Your task to perform on an android device: turn off location history Image 0: 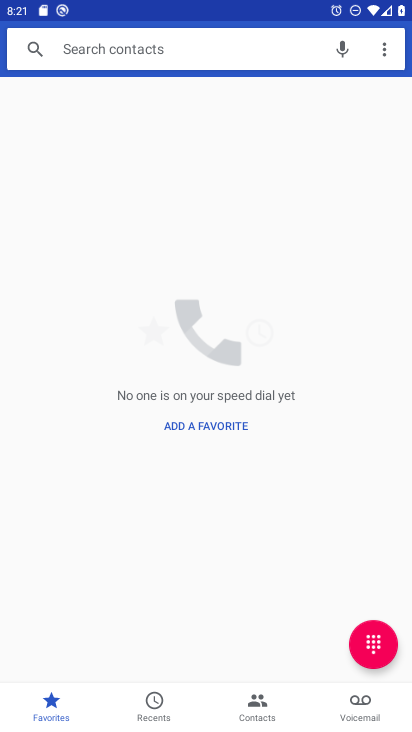
Step 0: press home button
Your task to perform on an android device: turn off location history Image 1: 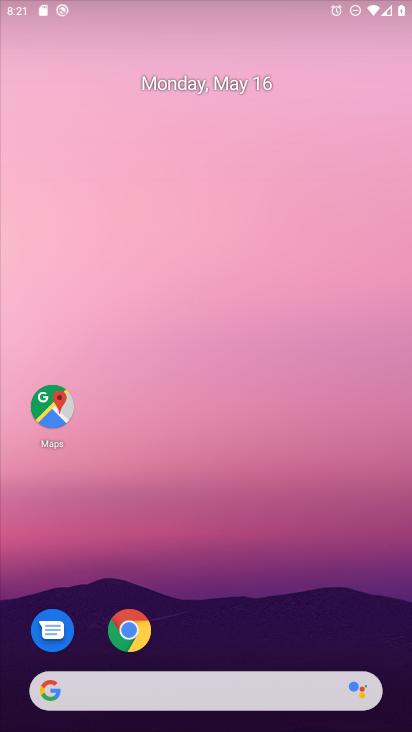
Step 1: drag from (288, 604) to (283, 183)
Your task to perform on an android device: turn off location history Image 2: 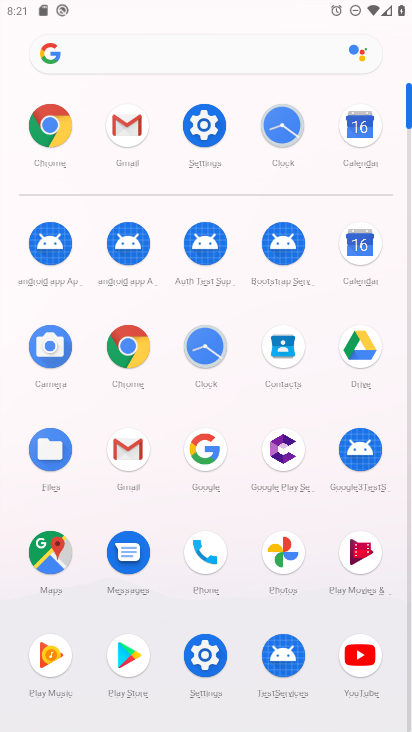
Step 2: click (185, 130)
Your task to perform on an android device: turn off location history Image 3: 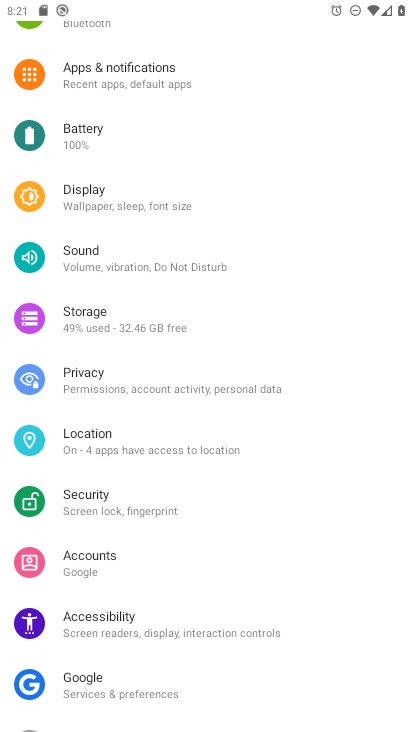
Step 3: click (166, 451)
Your task to perform on an android device: turn off location history Image 4: 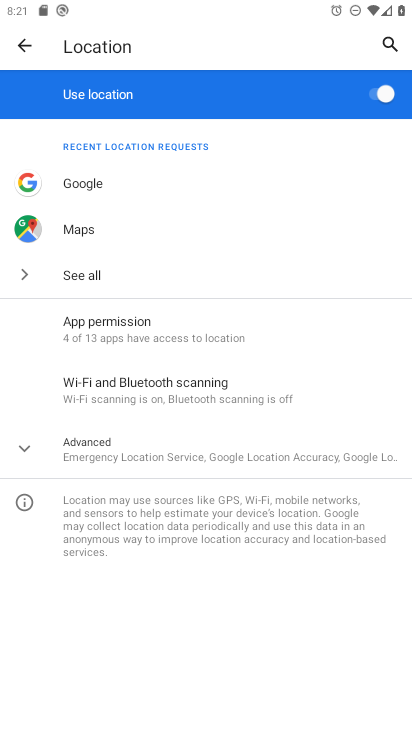
Step 4: click (199, 452)
Your task to perform on an android device: turn off location history Image 5: 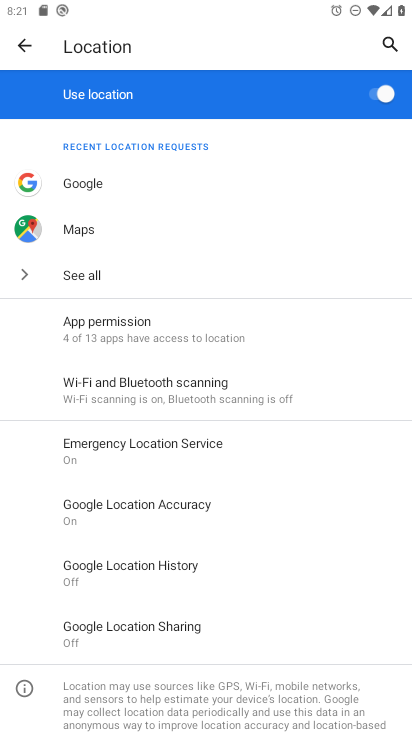
Step 5: task complete